Your task to perform on an android device: toggle javascript in the chrome app Image 0: 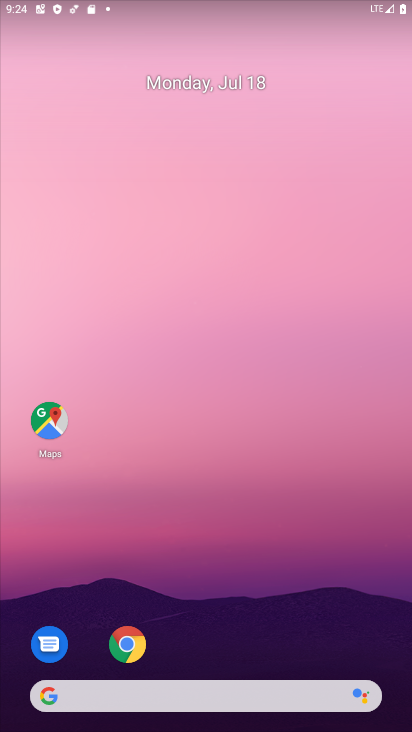
Step 0: click (142, 644)
Your task to perform on an android device: toggle javascript in the chrome app Image 1: 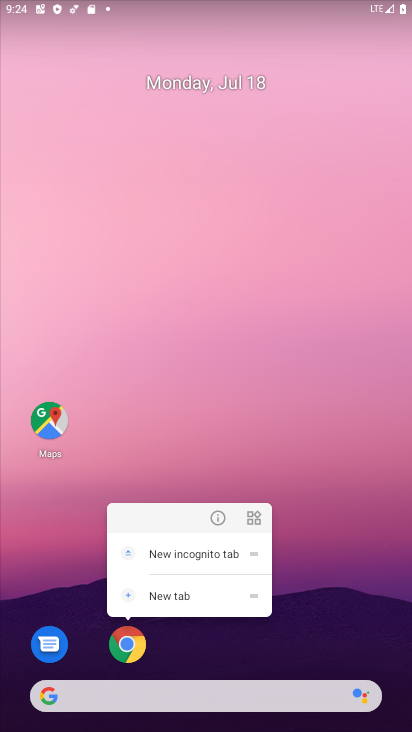
Step 1: click (141, 644)
Your task to perform on an android device: toggle javascript in the chrome app Image 2: 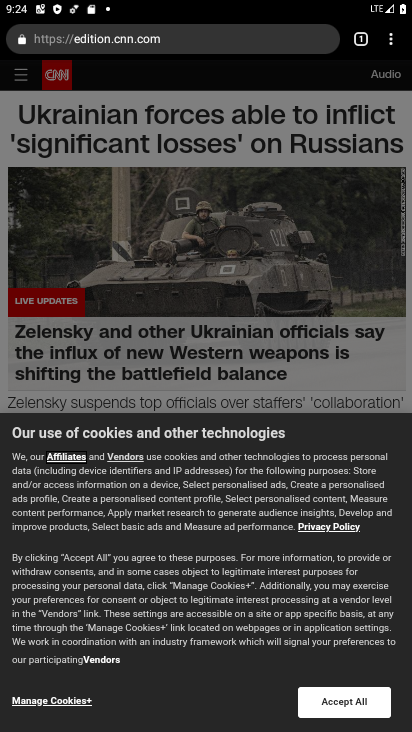
Step 2: click (391, 52)
Your task to perform on an android device: toggle javascript in the chrome app Image 3: 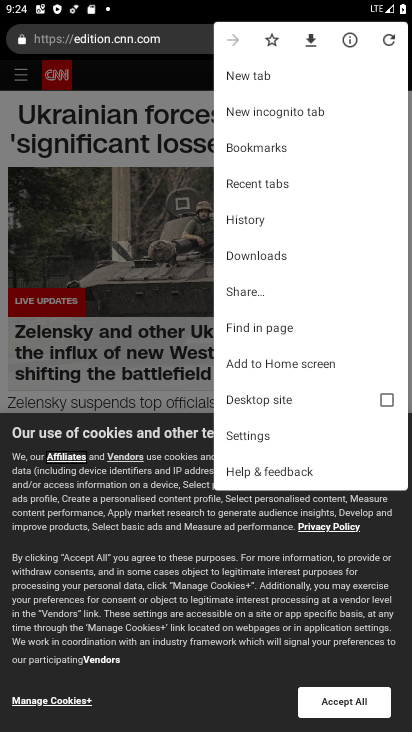
Step 3: click (256, 429)
Your task to perform on an android device: toggle javascript in the chrome app Image 4: 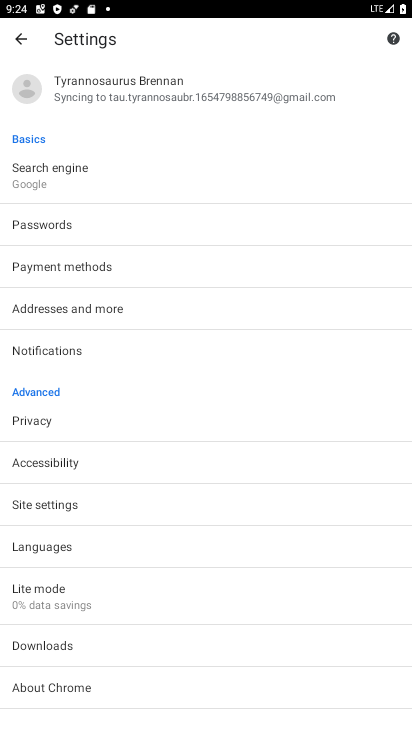
Step 4: click (33, 506)
Your task to perform on an android device: toggle javascript in the chrome app Image 5: 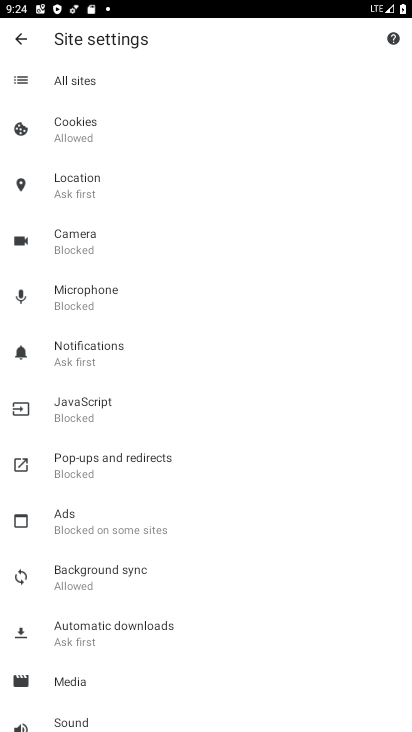
Step 5: click (73, 401)
Your task to perform on an android device: toggle javascript in the chrome app Image 6: 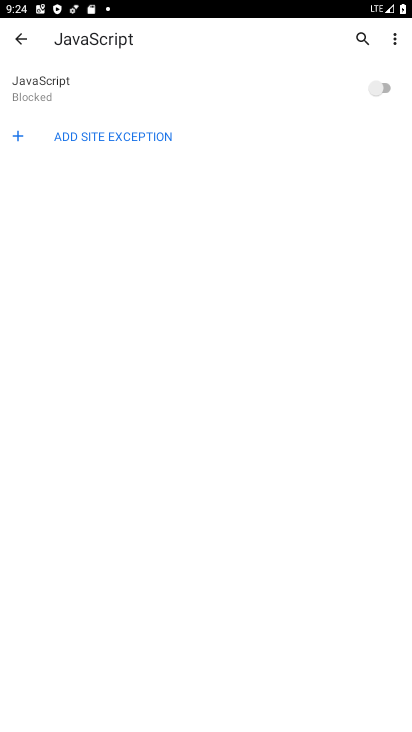
Step 6: click (384, 90)
Your task to perform on an android device: toggle javascript in the chrome app Image 7: 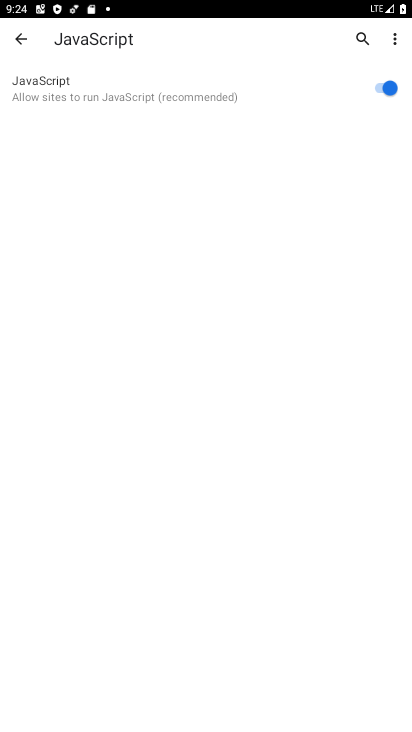
Step 7: task complete